Your task to perform on an android device: Go to Yahoo.com Image 0: 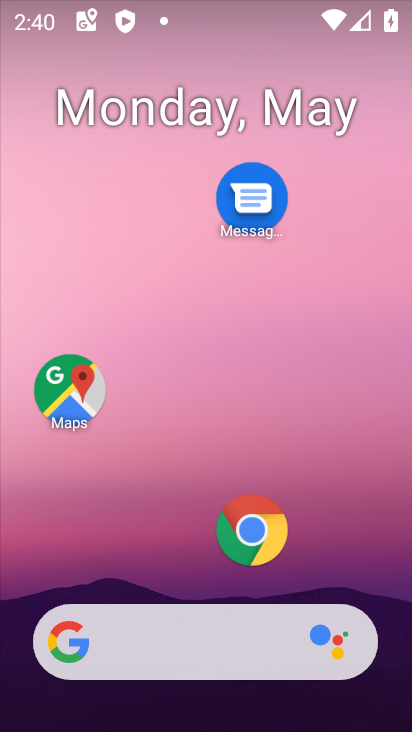
Step 0: click (239, 538)
Your task to perform on an android device: Go to Yahoo.com Image 1: 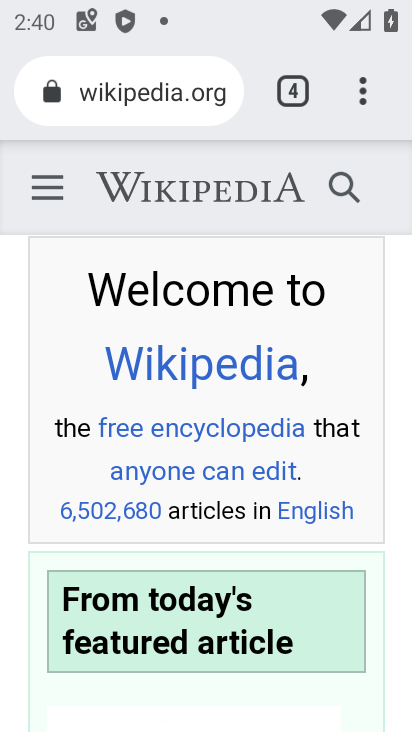
Step 1: click (293, 90)
Your task to perform on an android device: Go to Yahoo.com Image 2: 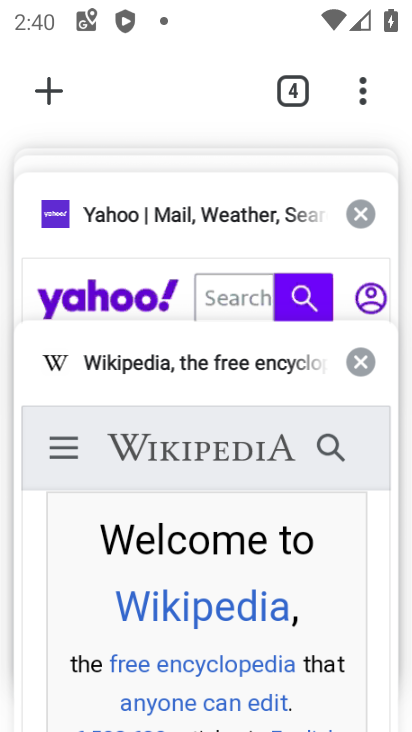
Step 2: click (122, 234)
Your task to perform on an android device: Go to Yahoo.com Image 3: 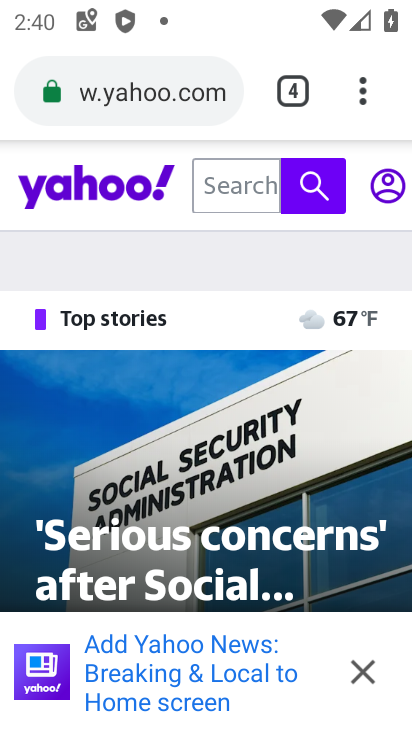
Step 3: task complete